Your task to perform on an android device: find which apps use the phone's location Image 0: 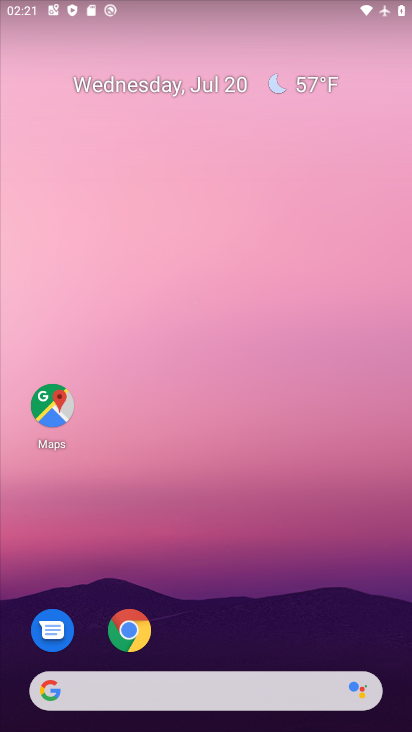
Step 0: drag from (305, 653) to (308, 117)
Your task to perform on an android device: find which apps use the phone's location Image 1: 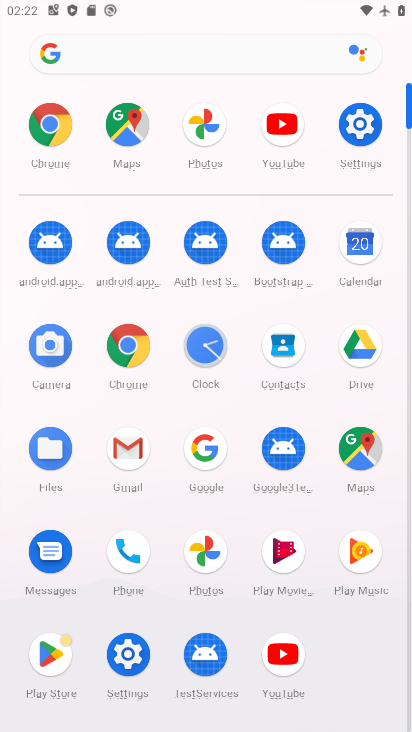
Step 1: click (349, 127)
Your task to perform on an android device: find which apps use the phone's location Image 2: 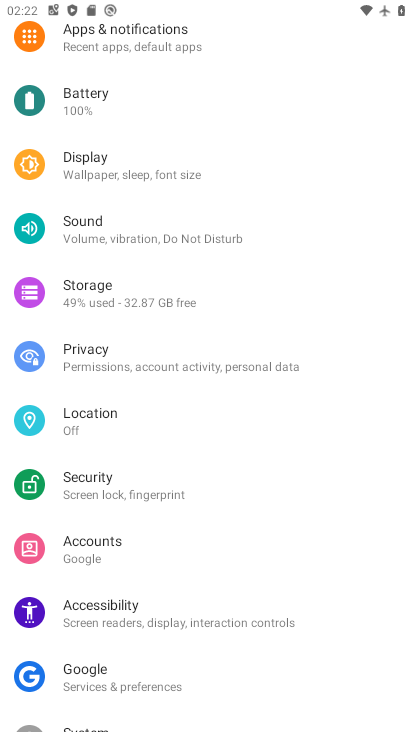
Step 2: click (103, 423)
Your task to perform on an android device: find which apps use the phone's location Image 3: 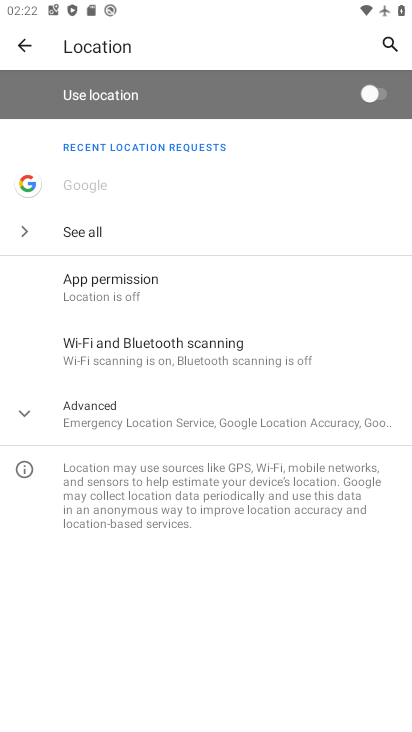
Step 3: click (142, 285)
Your task to perform on an android device: find which apps use the phone's location Image 4: 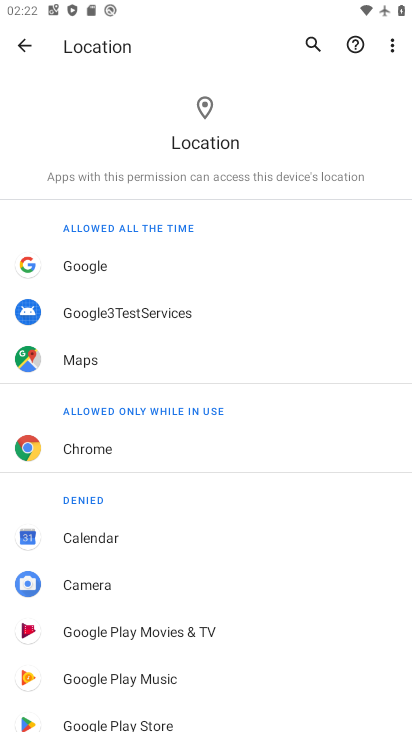
Step 4: task complete